Your task to perform on an android device: Open Google Chrome and open the bookmarks view Image 0: 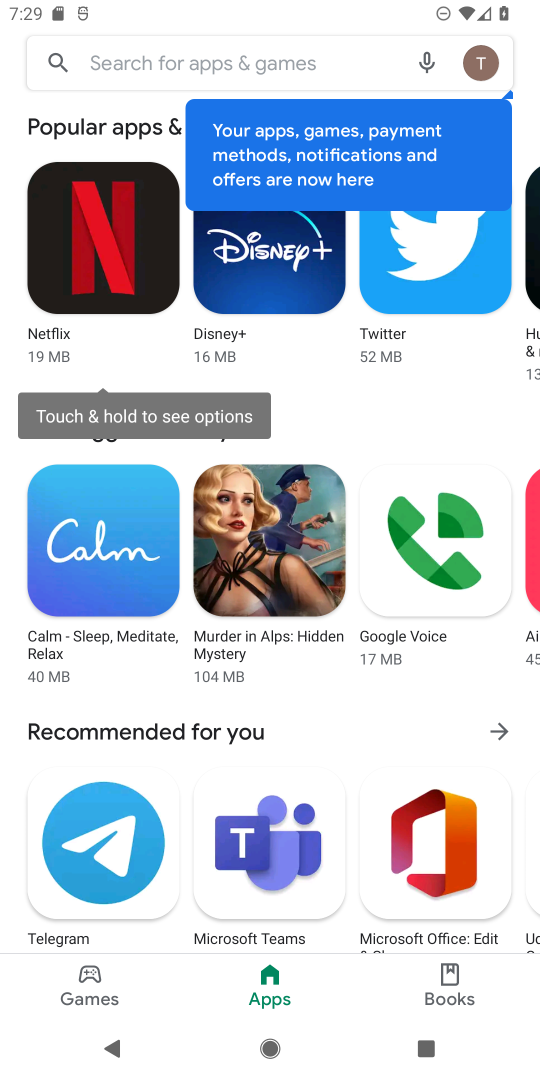
Step 0: press home button
Your task to perform on an android device: Open Google Chrome and open the bookmarks view Image 1: 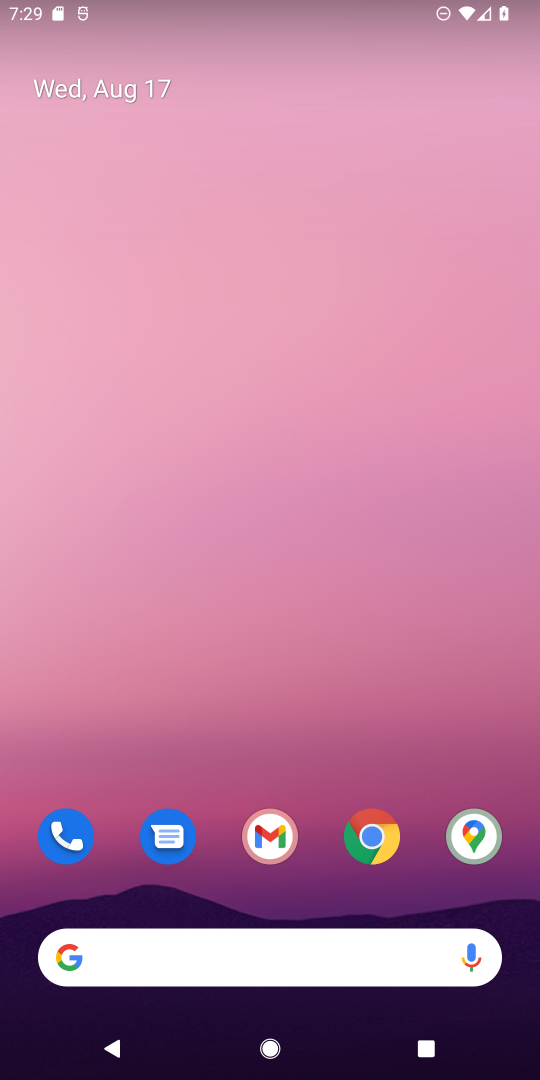
Step 1: click (369, 833)
Your task to perform on an android device: Open Google Chrome and open the bookmarks view Image 2: 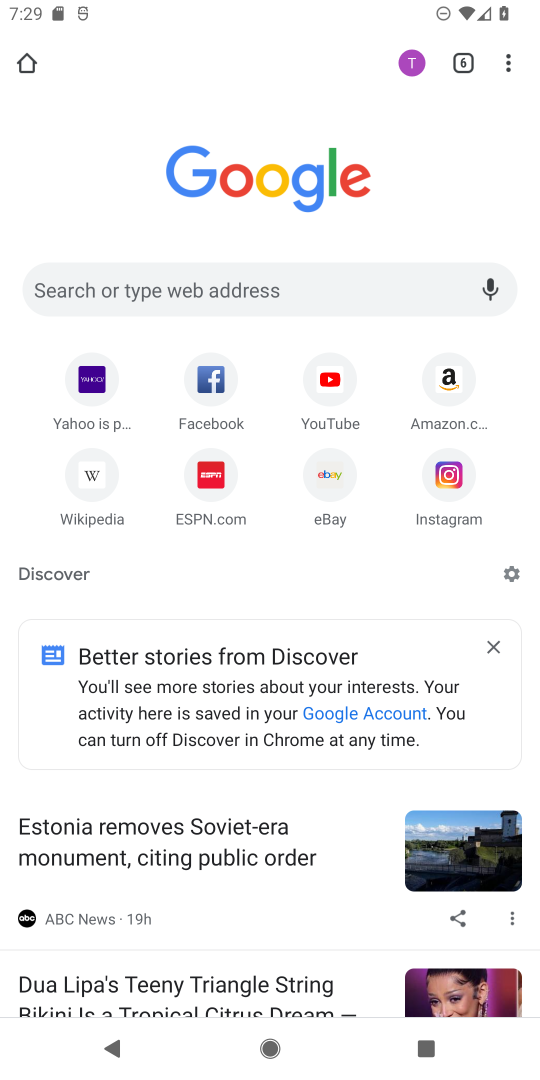
Step 2: click (524, 63)
Your task to perform on an android device: Open Google Chrome and open the bookmarks view Image 3: 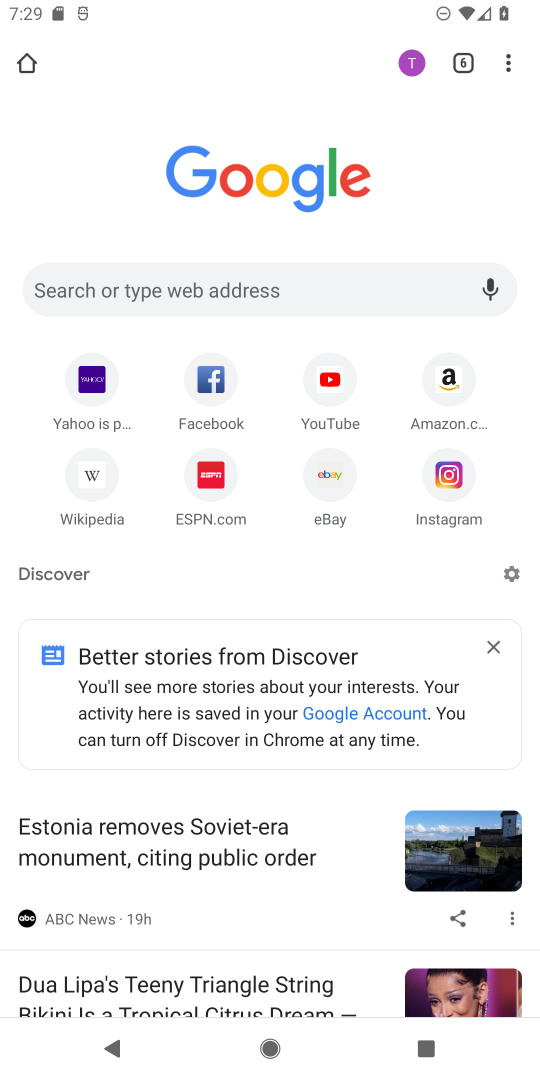
Step 3: click (529, 60)
Your task to perform on an android device: Open Google Chrome and open the bookmarks view Image 4: 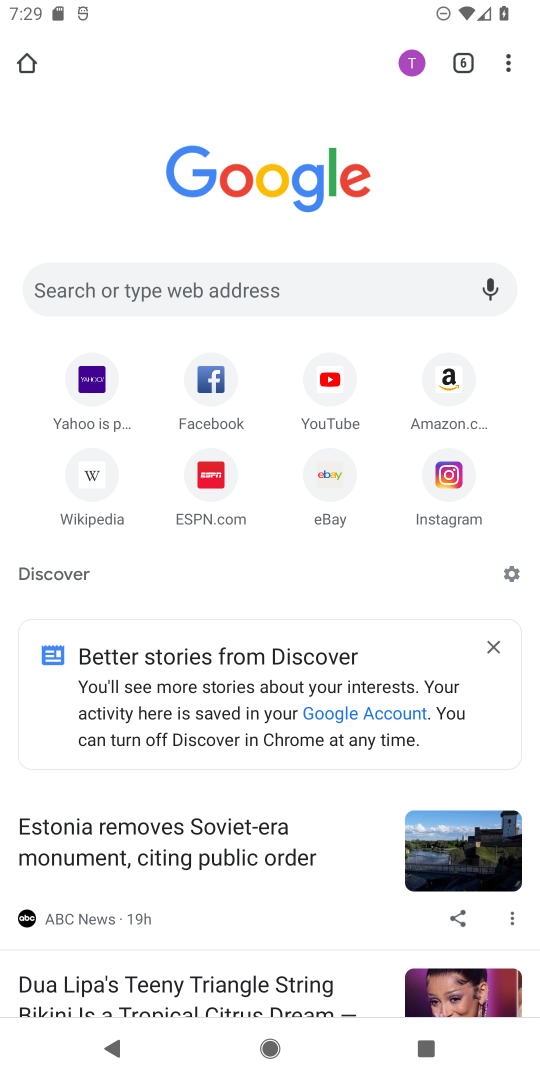
Step 4: click (526, 68)
Your task to perform on an android device: Open Google Chrome and open the bookmarks view Image 5: 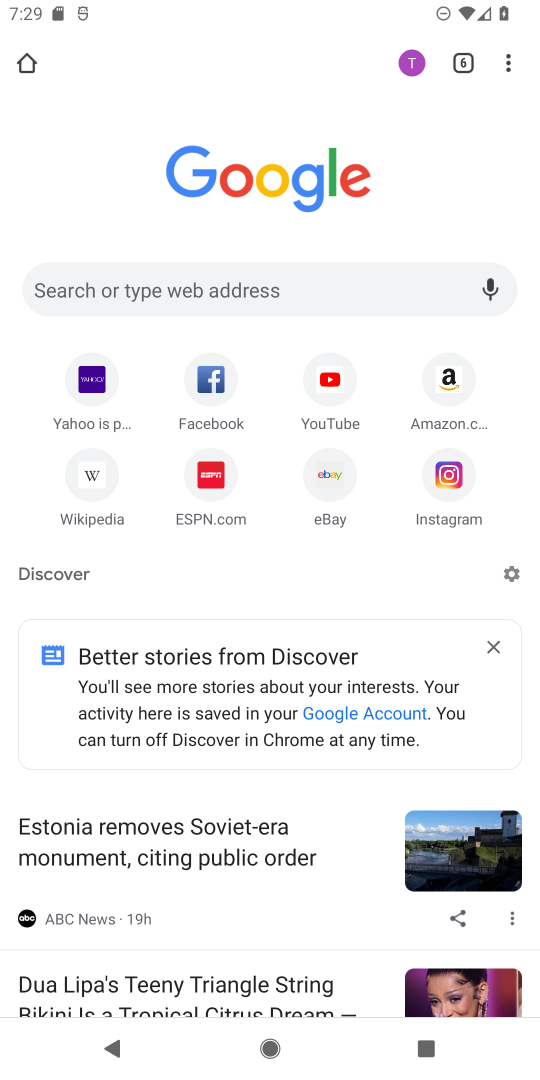
Step 5: click (532, 58)
Your task to perform on an android device: Open Google Chrome and open the bookmarks view Image 6: 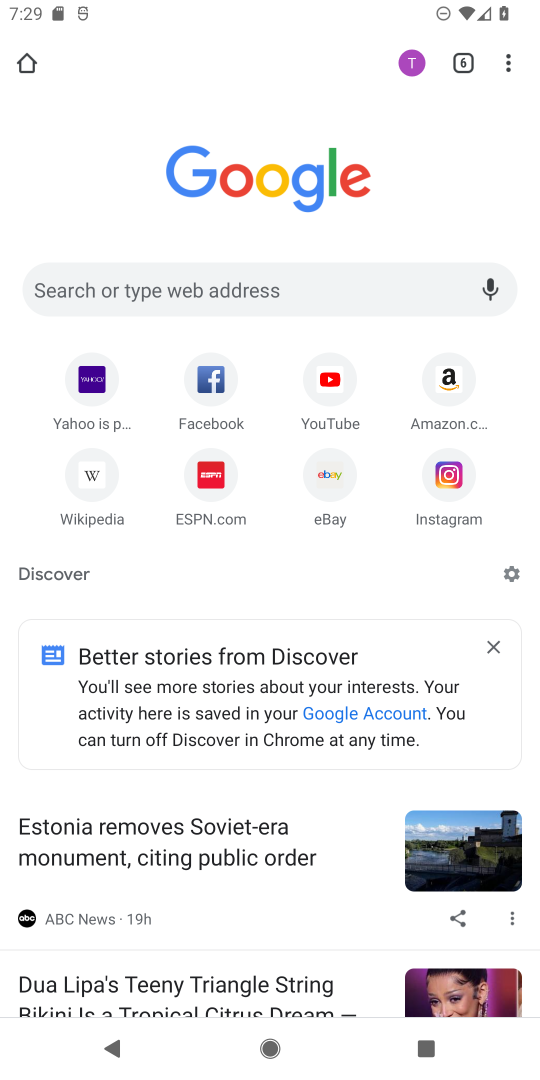
Step 6: click (532, 69)
Your task to perform on an android device: Open Google Chrome and open the bookmarks view Image 7: 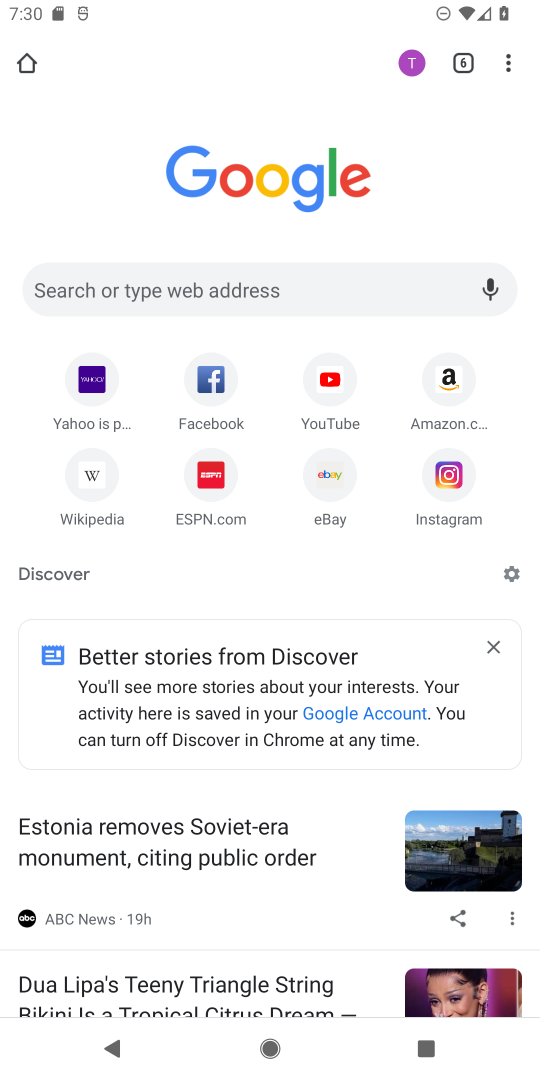
Step 7: click (518, 61)
Your task to perform on an android device: Open Google Chrome and open the bookmarks view Image 8: 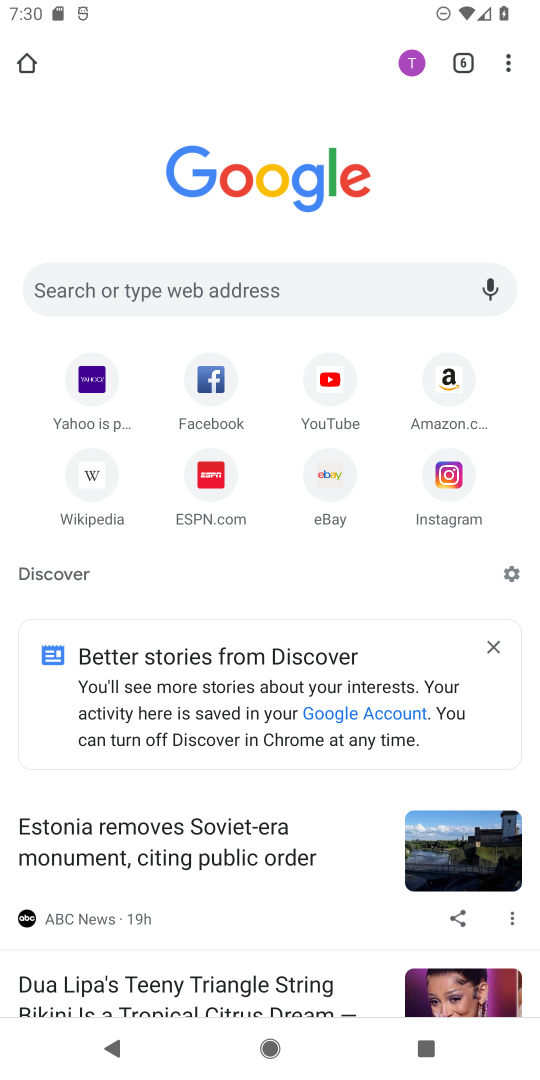
Step 8: click (532, 61)
Your task to perform on an android device: Open Google Chrome and open the bookmarks view Image 9: 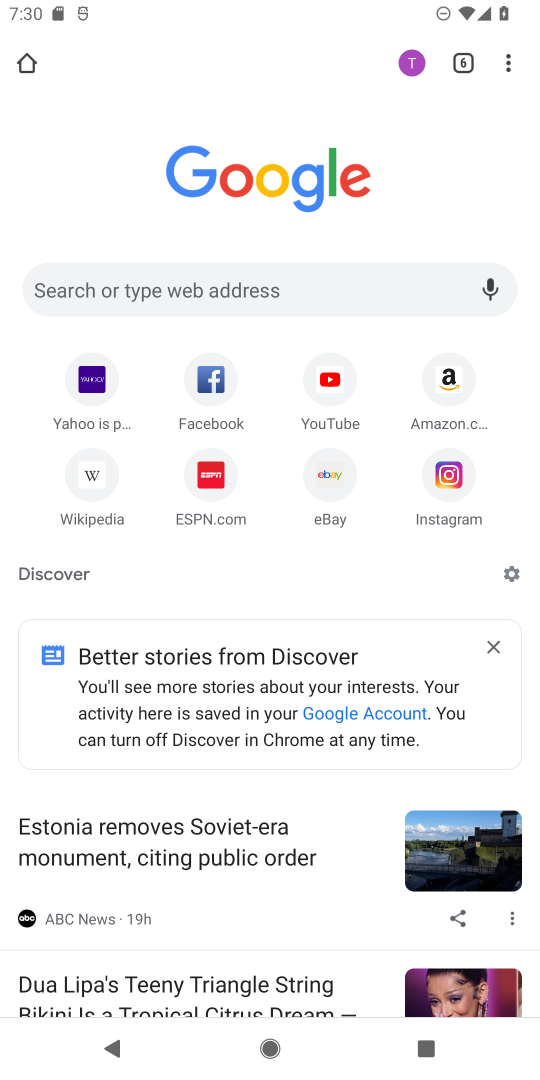
Step 9: click (533, 58)
Your task to perform on an android device: Open Google Chrome and open the bookmarks view Image 10: 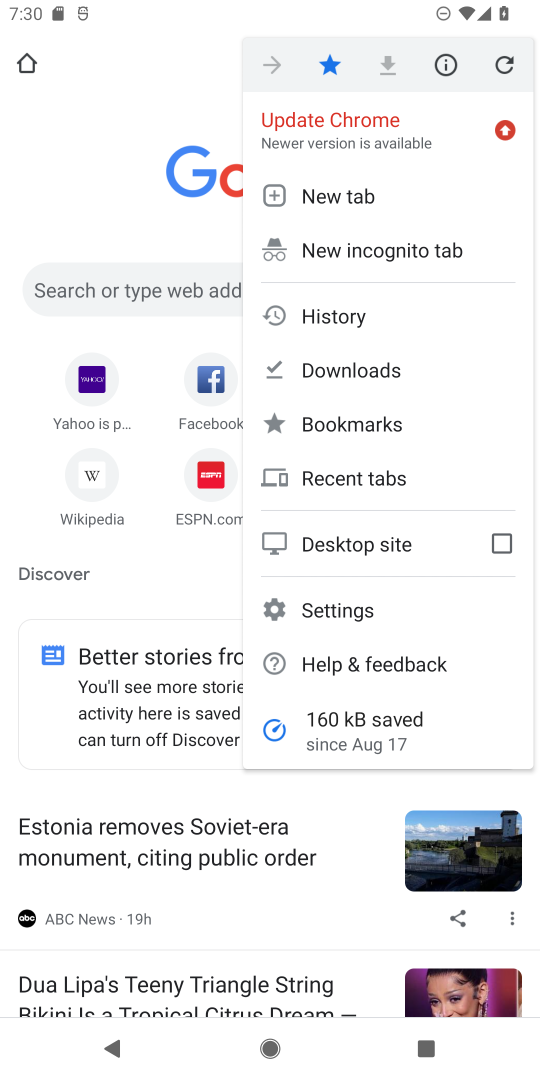
Step 10: click (356, 415)
Your task to perform on an android device: Open Google Chrome and open the bookmarks view Image 11: 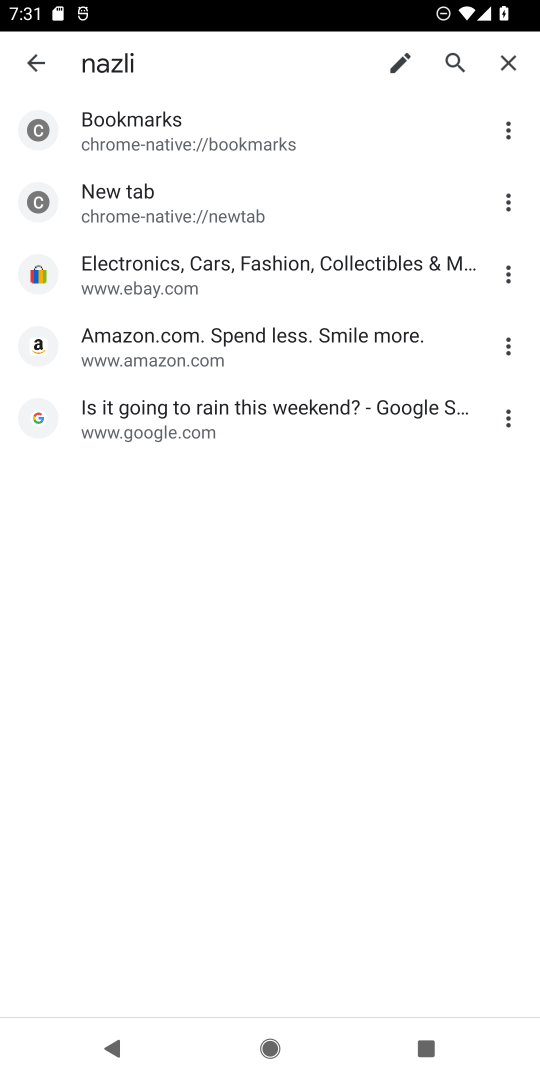
Step 11: task complete